Your task to perform on an android device: search for starred emails in the gmail app Image 0: 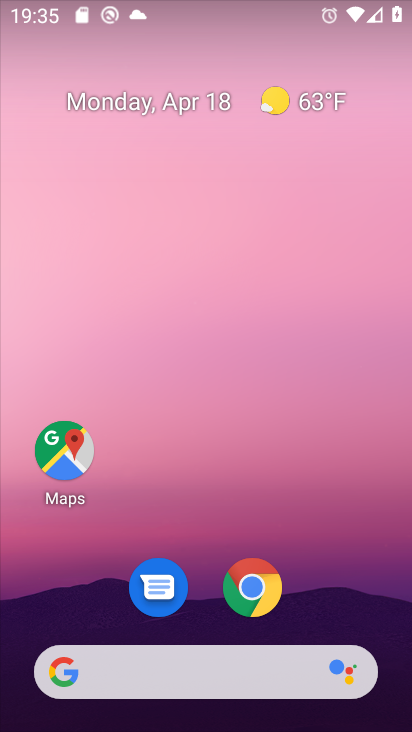
Step 0: drag from (316, 581) to (248, 18)
Your task to perform on an android device: search for starred emails in the gmail app Image 1: 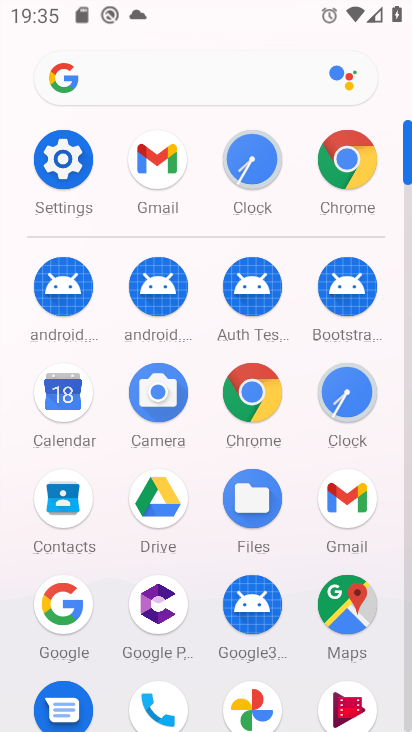
Step 1: click (350, 496)
Your task to perform on an android device: search for starred emails in the gmail app Image 2: 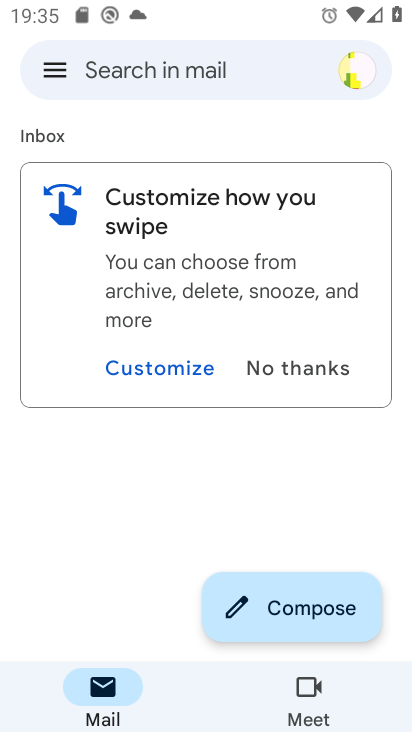
Step 2: click (304, 373)
Your task to perform on an android device: search for starred emails in the gmail app Image 3: 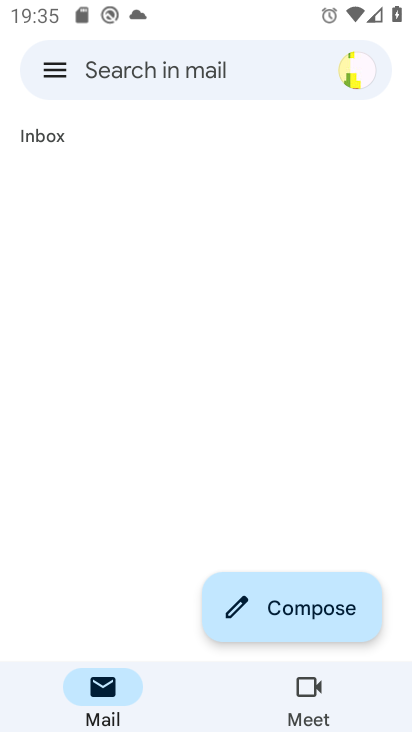
Step 3: click (59, 71)
Your task to perform on an android device: search for starred emails in the gmail app Image 4: 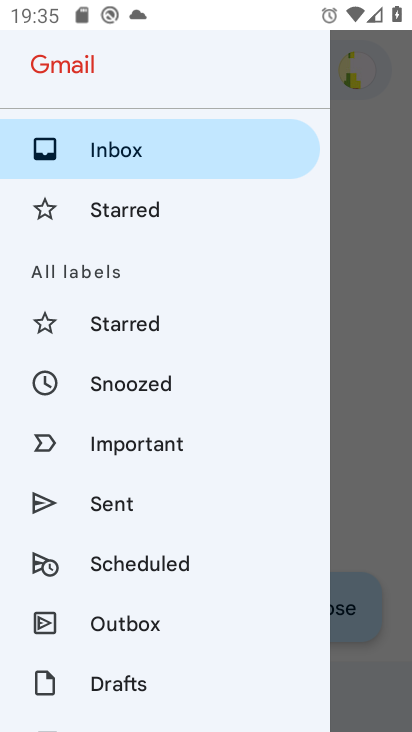
Step 4: drag from (185, 614) to (185, 383)
Your task to perform on an android device: search for starred emails in the gmail app Image 5: 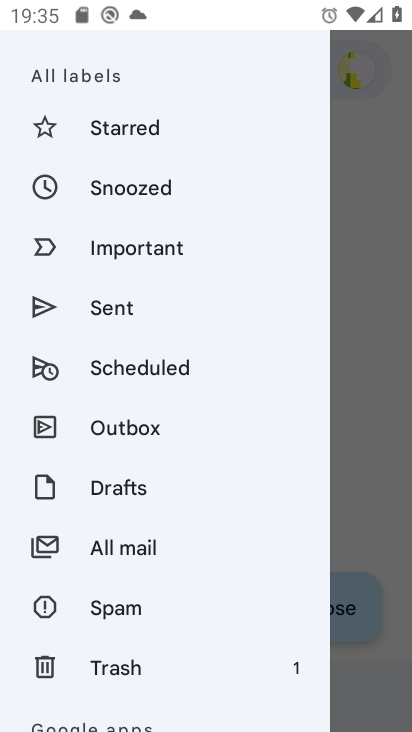
Step 5: drag from (174, 615) to (208, 415)
Your task to perform on an android device: search for starred emails in the gmail app Image 6: 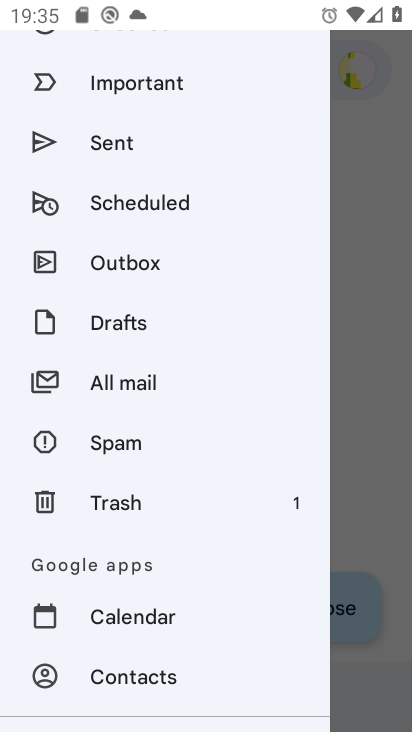
Step 6: drag from (173, 628) to (213, 376)
Your task to perform on an android device: search for starred emails in the gmail app Image 7: 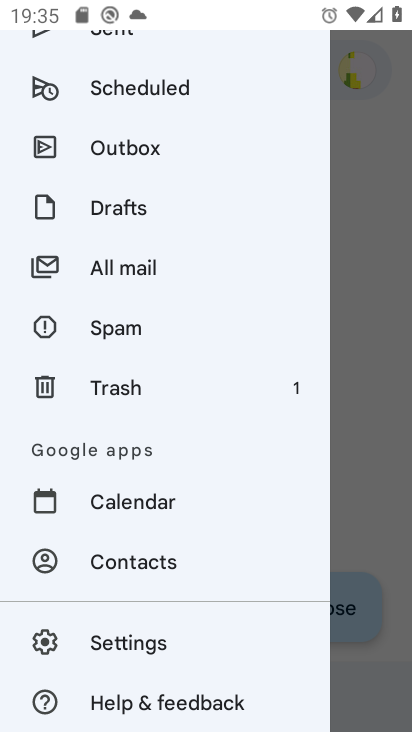
Step 7: drag from (130, 132) to (163, 591)
Your task to perform on an android device: search for starred emails in the gmail app Image 8: 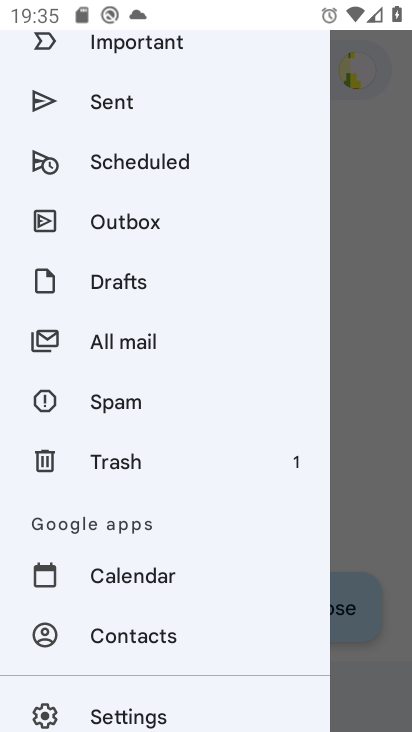
Step 8: drag from (182, 145) to (181, 495)
Your task to perform on an android device: search for starred emails in the gmail app Image 9: 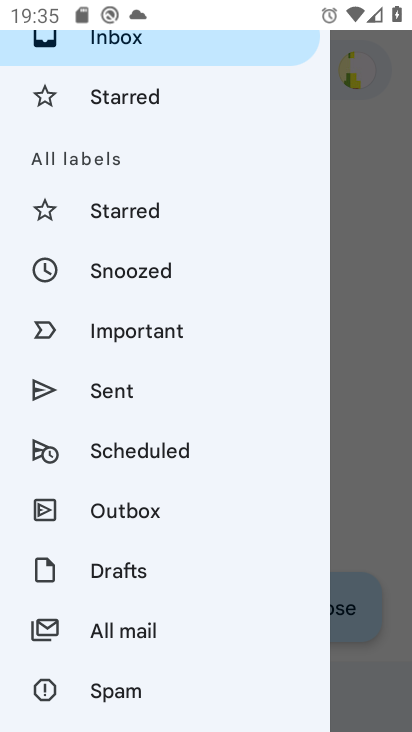
Step 9: click (187, 220)
Your task to perform on an android device: search for starred emails in the gmail app Image 10: 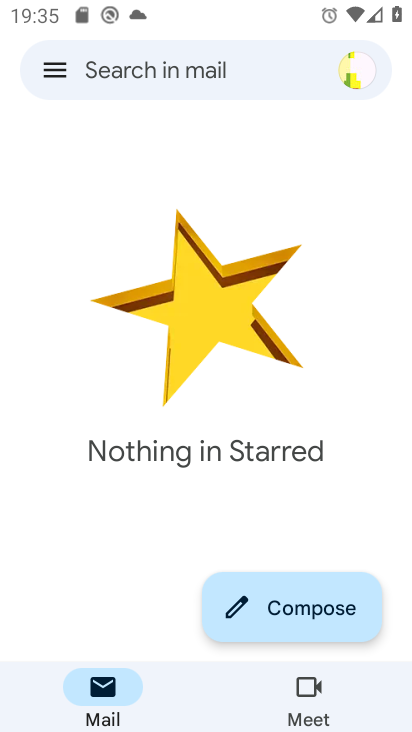
Step 10: task complete